Your task to perform on an android device: Check the news Image 0: 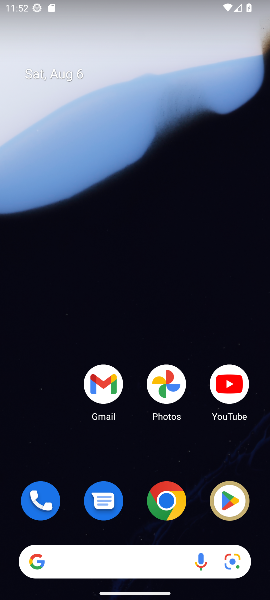
Step 0: drag from (186, 247) to (154, 49)
Your task to perform on an android device: Check the news Image 1: 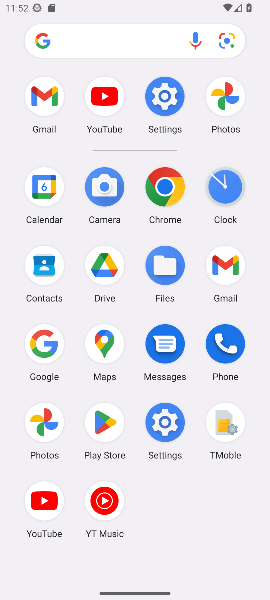
Step 1: click (160, 424)
Your task to perform on an android device: Check the news Image 2: 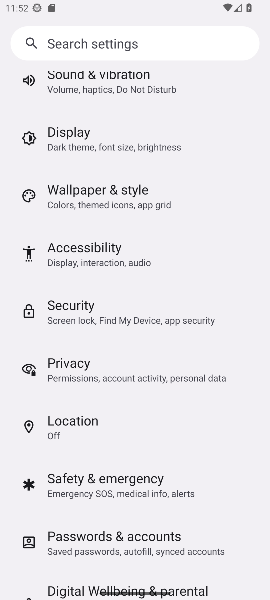
Step 2: press back button
Your task to perform on an android device: Check the news Image 3: 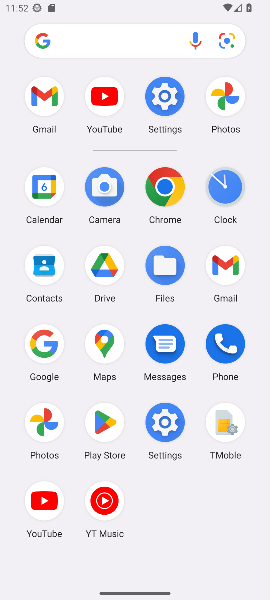
Step 3: click (45, 370)
Your task to perform on an android device: Check the news Image 4: 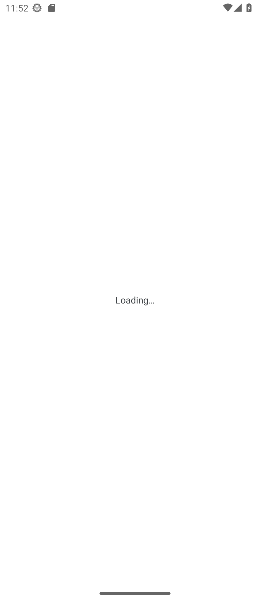
Step 4: task complete